Your task to perform on an android device: Open privacy settings Image 0: 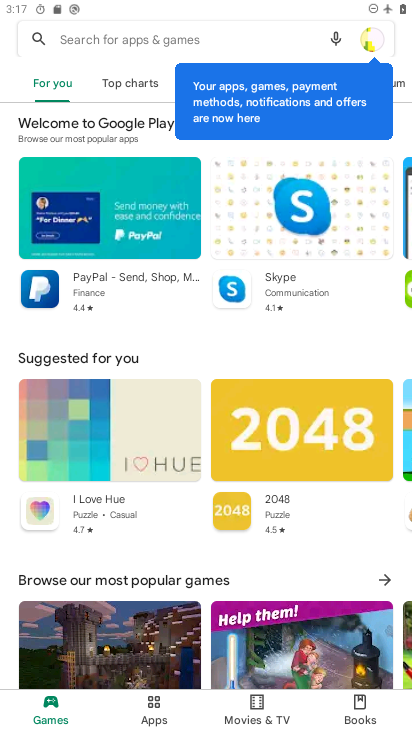
Step 0: press home button
Your task to perform on an android device: Open privacy settings Image 1: 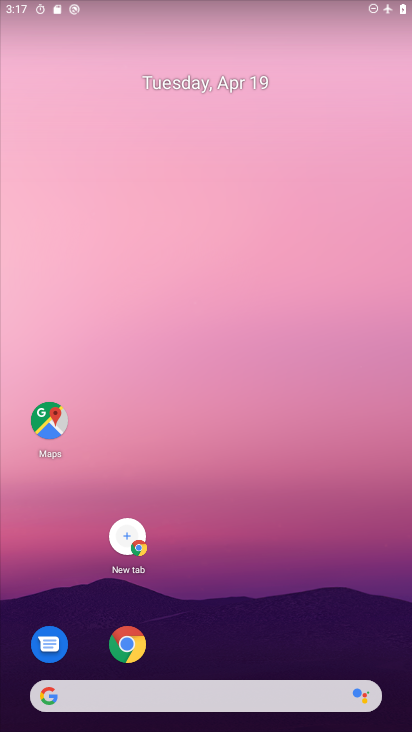
Step 1: click (133, 644)
Your task to perform on an android device: Open privacy settings Image 2: 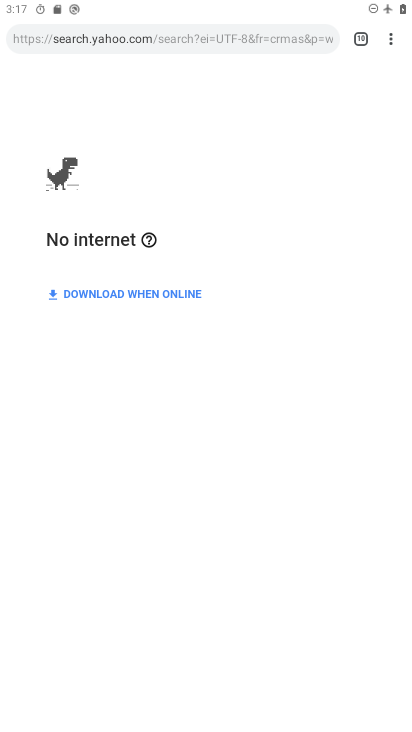
Step 2: click (386, 38)
Your task to perform on an android device: Open privacy settings Image 3: 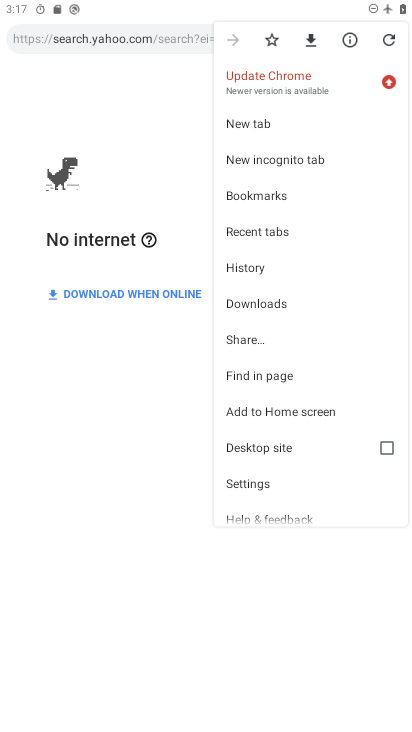
Step 3: click (250, 482)
Your task to perform on an android device: Open privacy settings Image 4: 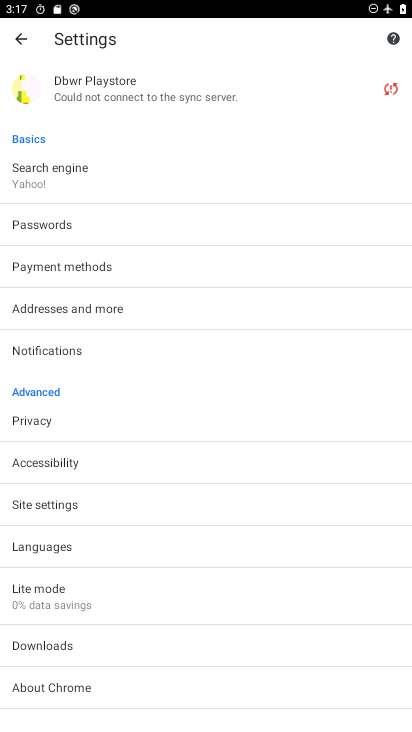
Step 4: click (29, 418)
Your task to perform on an android device: Open privacy settings Image 5: 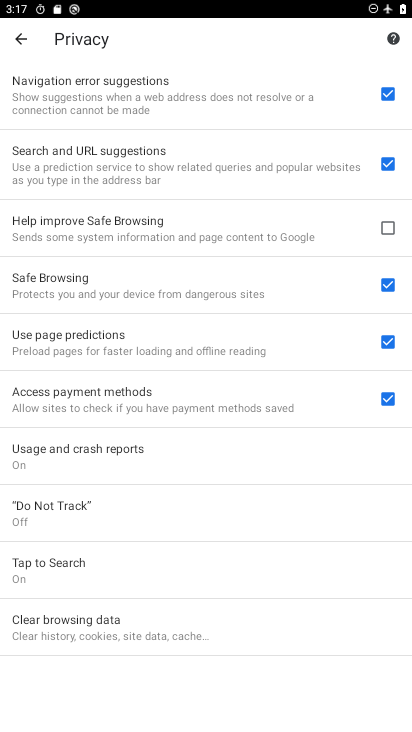
Step 5: task complete